Your task to perform on an android device: What's on my calendar today? Image 0: 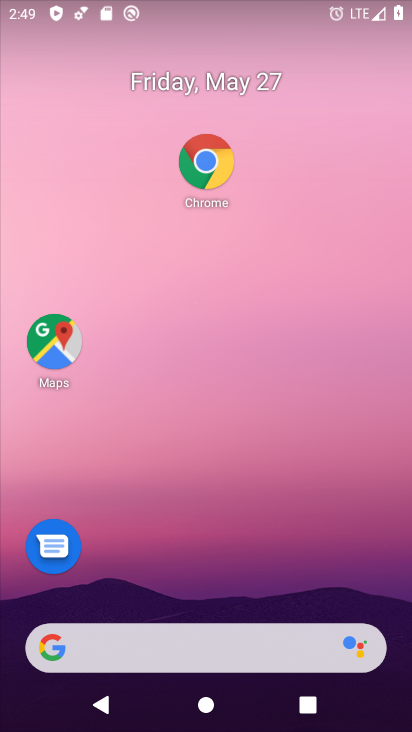
Step 0: drag from (170, 575) to (220, 157)
Your task to perform on an android device: What's on my calendar today? Image 1: 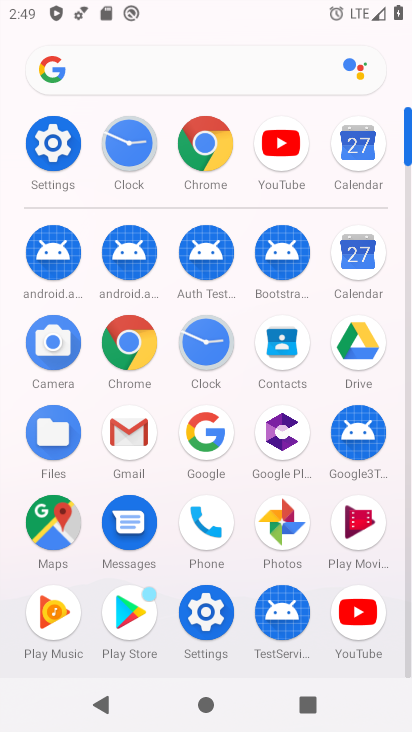
Step 1: click (374, 258)
Your task to perform on an android device: What's on my calendar today? Image 2: 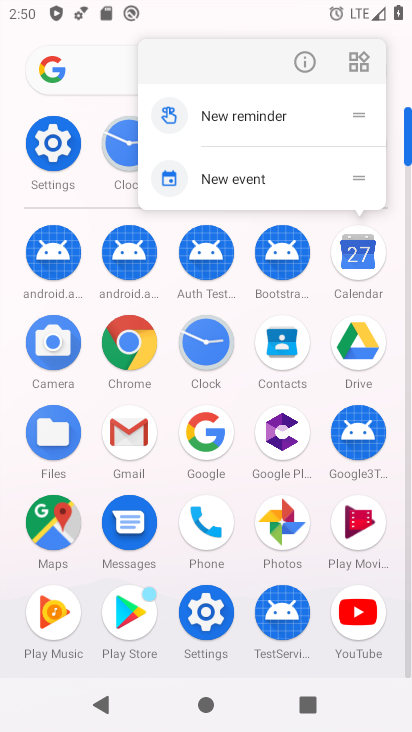
Step 2: click (359, 262)
Your task to perform on an android device: What's on my calendar today? Image 3: 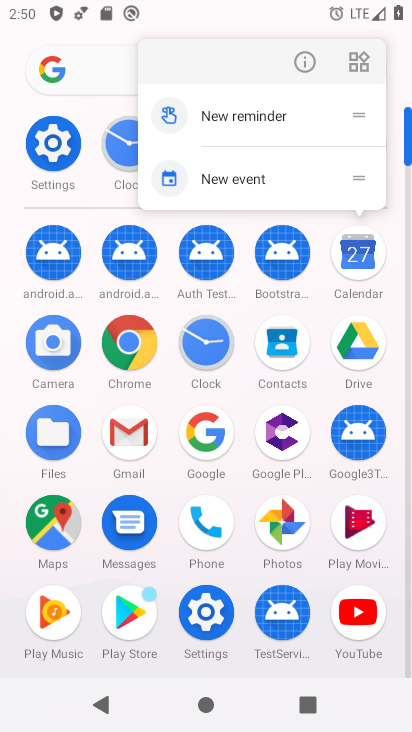
Step 3: click (360, 262)
Your task to perform on an android device: What's on my calendar today? Image 4: 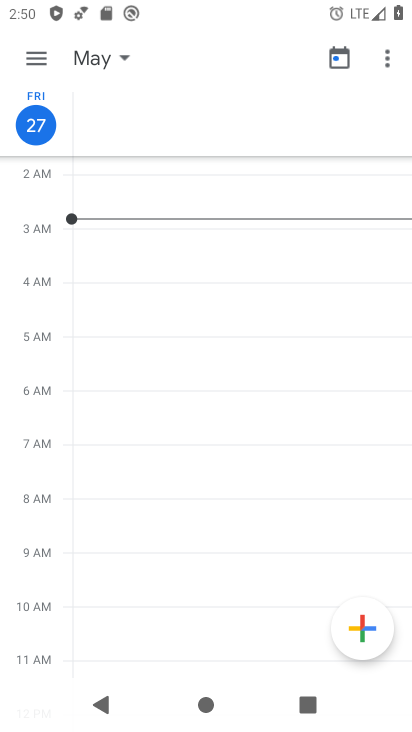
Step 4: click (115, 51)
Your task to perform on an android device: What's on my calendar today? Image 5: 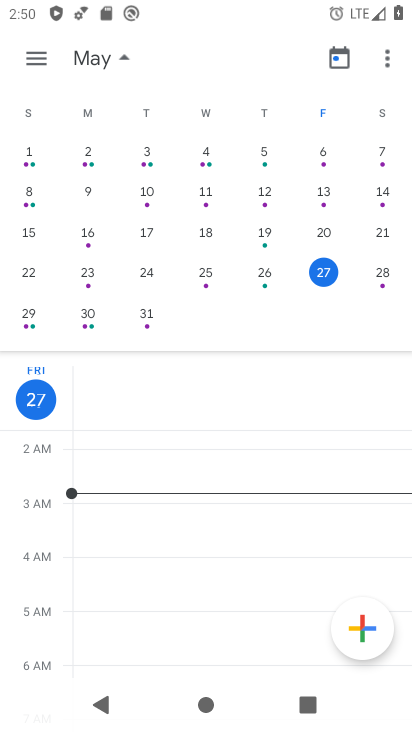
Step 5: task complete